Your task to perform on an android device: Search for Mexican restaurants on Maps Image 0: 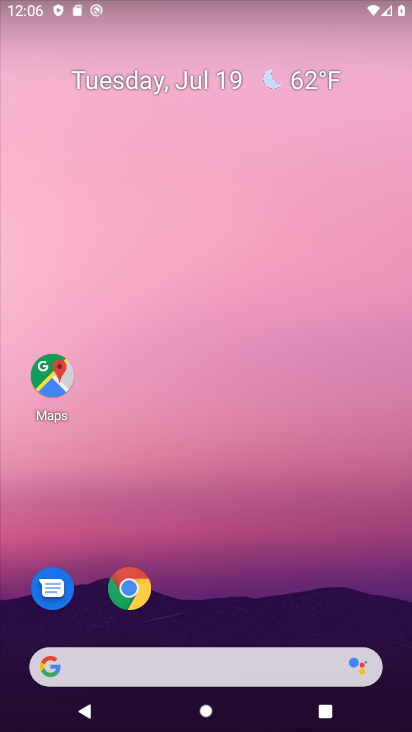
Step 0: click (65, 355)
Your task to perform on an android device: Search for Mexican restaurants on Maps Image 1: 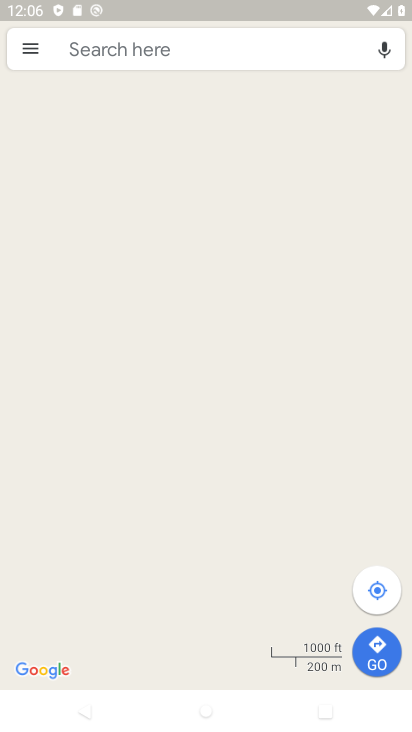
Step 1: click (115, 61)
Your task to perform on an android device: Search for Mexican restaurants on Maps Image 2: 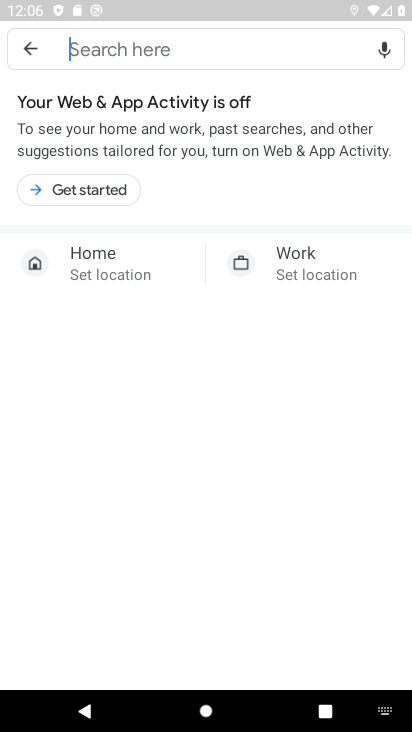
Step 2: type "mexican restaurants"
Your task to perform on an android device: Search for Mexican restaurants on Maps Image 3: 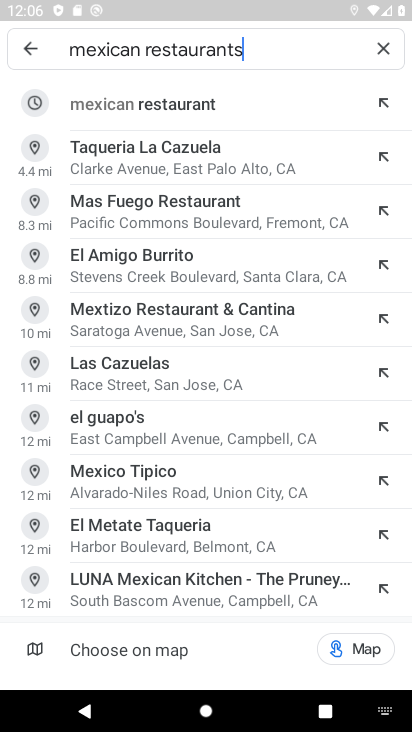
Step 3: click (117, 112)
Your task to perform on an android device: Search for Mexican restaurants on Maps Image 4: 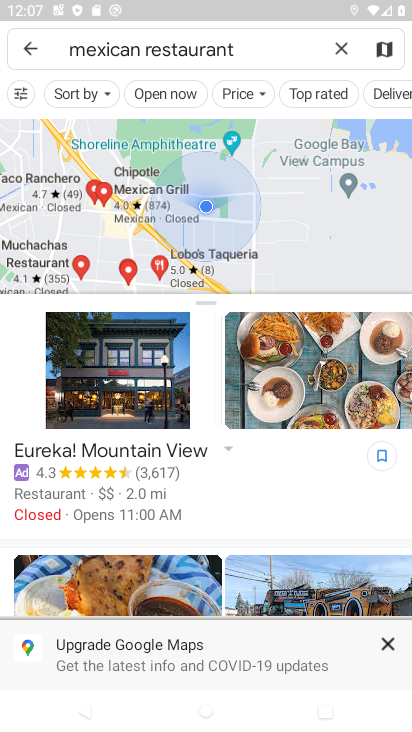
Step 4: task complete